Your task to perform on an android device: turn off notifications settings in the gmail app Image 0: 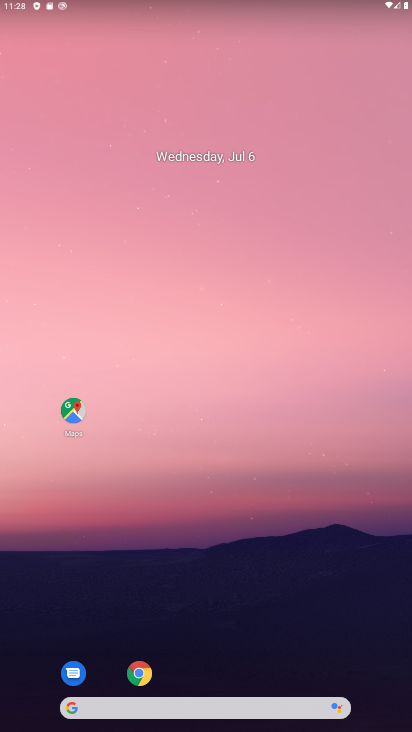
Step 0: drag from (242, 573) to (175, 153)
Your task to perform on an android device: turn off notifications settings in the gmail app Image 1: 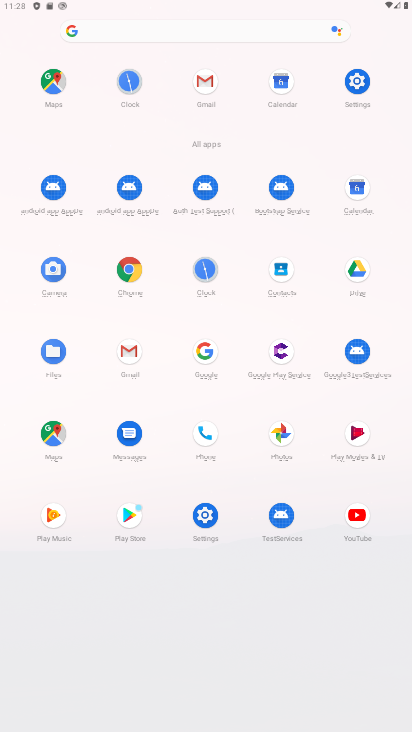
Step 1: click (207, 81)
Your task to perform on an android device: turn off notifications settings in the gmail app Image 2: 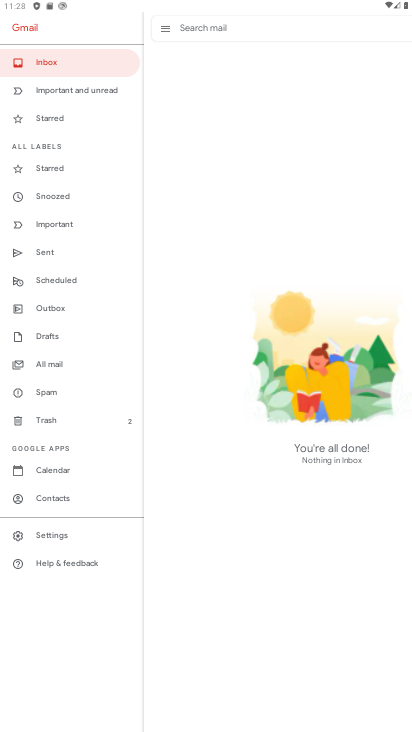
Step 2: click (46, 536)
Your task to perform on an android device: turn off notifications settings in the gmail app Image 3: 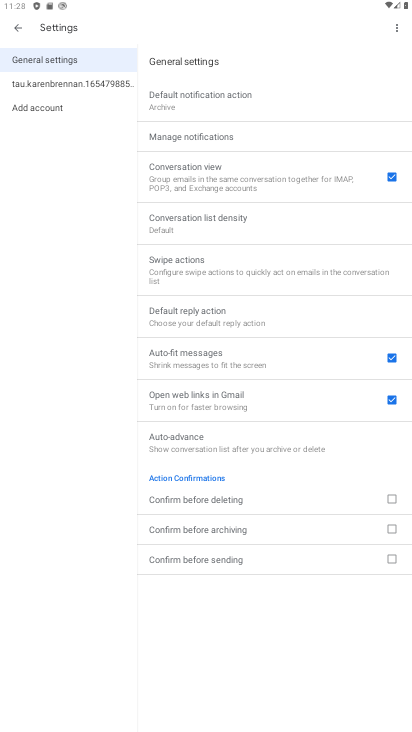
Step 3: click (197, 136)
Your task to perform on an android device: turn off notifications settings in the gmail app Image 4: 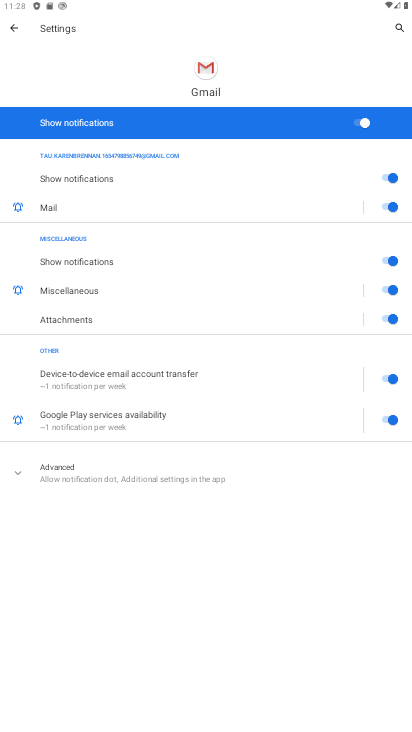
Step 4: click (363, 126)
Your task to perform on an android device: turn off notifications settings in the gmail app Image 5: 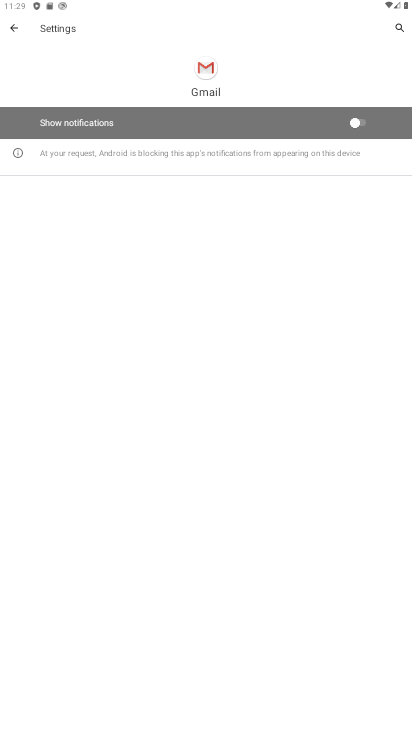
Step 5: task complete